Your task to perform on an android device: Go to display settings Image 0: 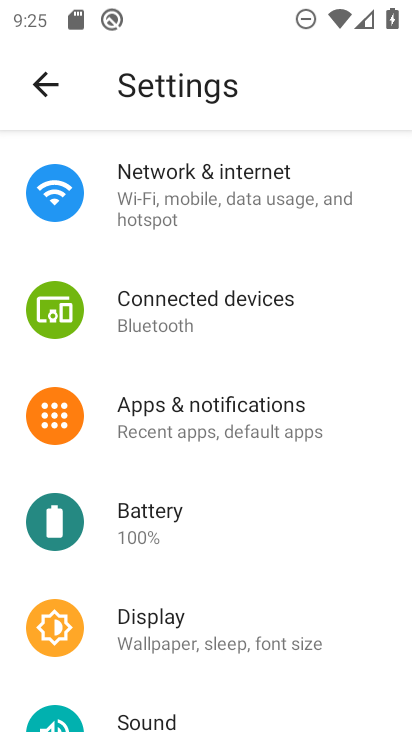
Step 0: click (162, 619)
Your task to perform on an android device: Go to display settings Image 1: 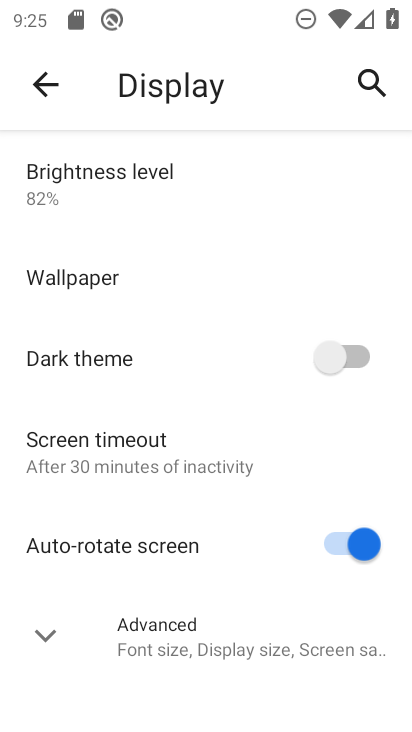
Step 1: click (39, 634)
Your task to perform on an android device: Go to display settings Image 2: 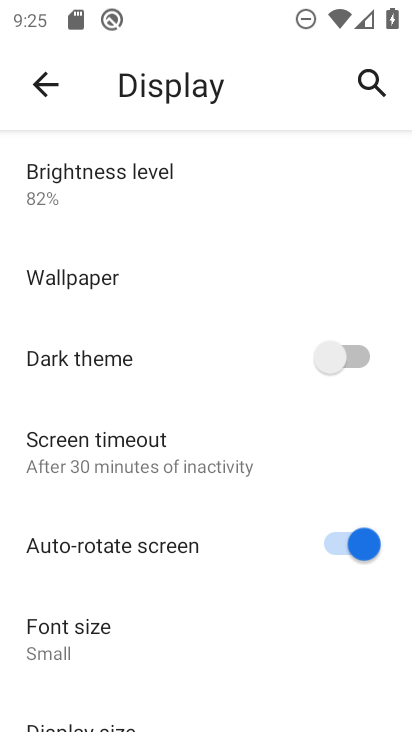
Step 2: task complete